Your task to perform on an android device: Open my contact list Image 0: 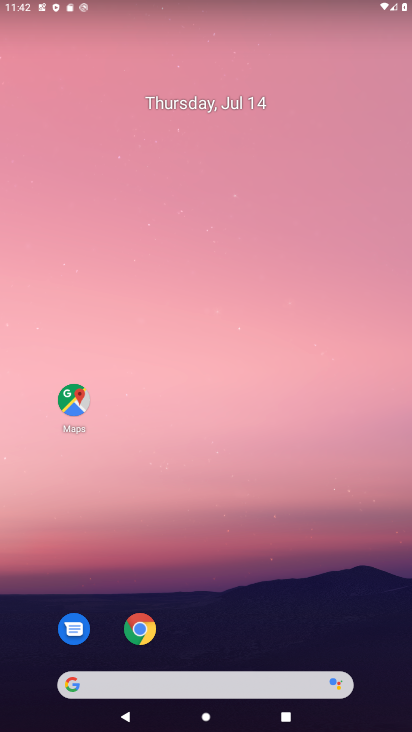
Step 0: press home button
Your task to perform on an android device: Open my contact list Image 1: 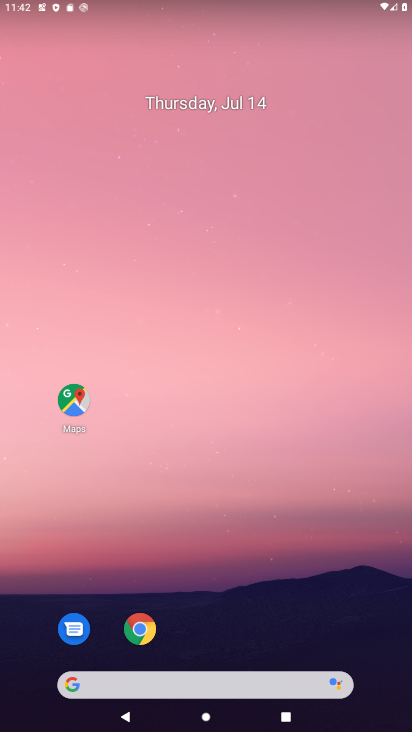
Step 1: drag from (285, 625) to (347, 93)
Your task to perform on an android device: Open my contact list Image 2: 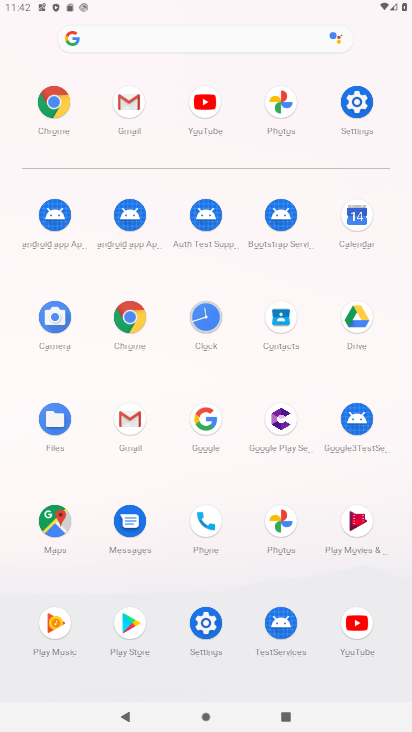
Step 2: click (287, 315)
Your task to perform on an android device: Open my contact list Image 3: 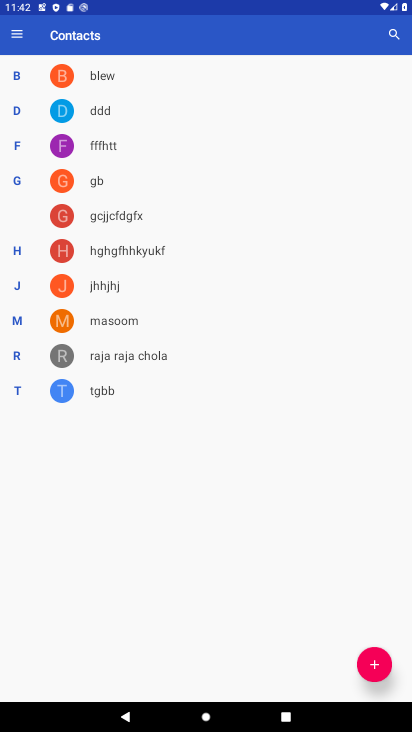
Step 3: task complete